Your task to perform on an android device: turn on airplane mode Image 0: 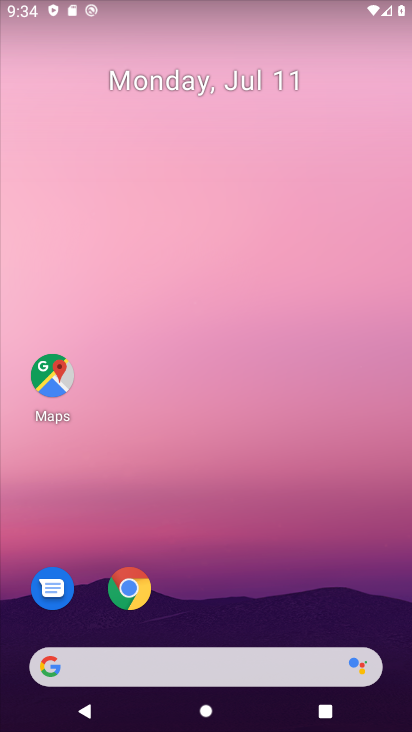
Step 0: drag from (305, 558) to (234, 0)
Your task to perform on an android device: turn on airplane mode Image 1: 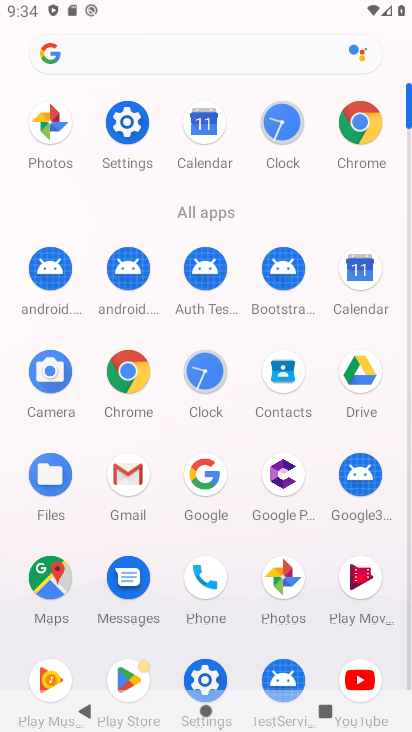
Step 1: click (117, 126)
Your task to perform on an android device: turn on airplane mode Image 2: 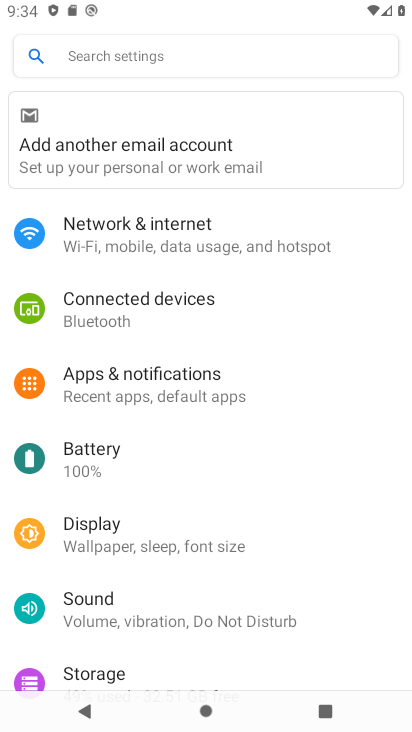
Step 2: click (122, 245)
Your task to perform on an android device: turn on airplane mode Image 3: 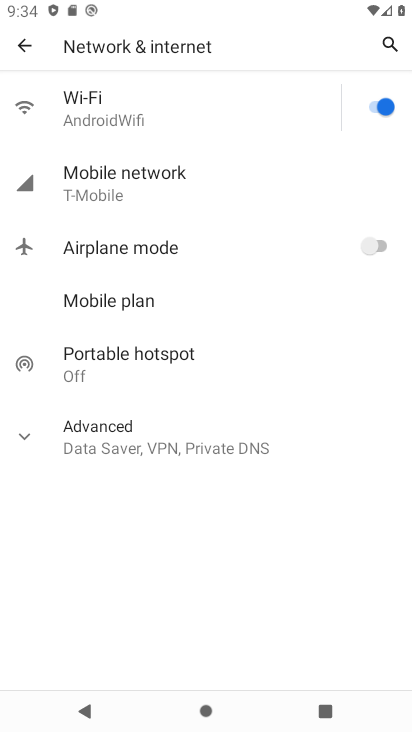
Step 3: click (372, 251)
Your task to perform on an android device: turn on airplane mode Image 4: 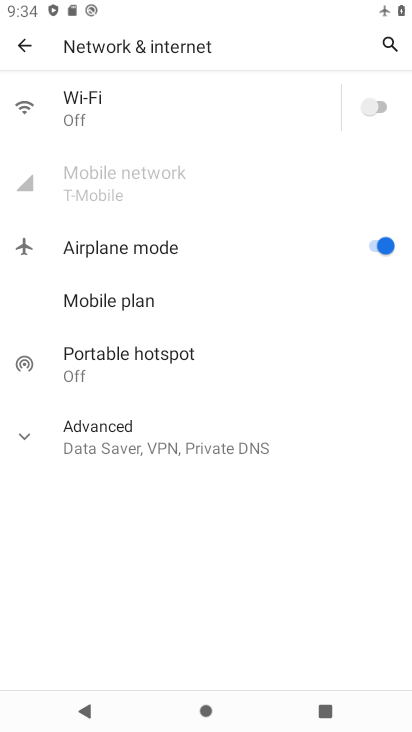
Step 4: task complete